Your task to perform on an android device: add a contact Image 0: 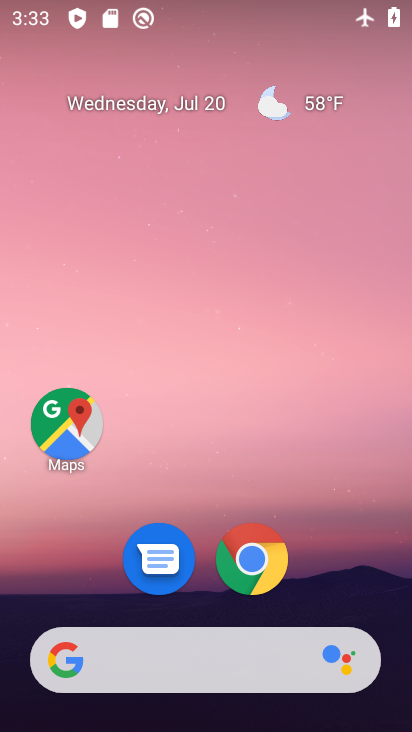
Step 0: drag from (197, 577) to (187, 18)
Your task to perform on an android device: add a contact Image 1: 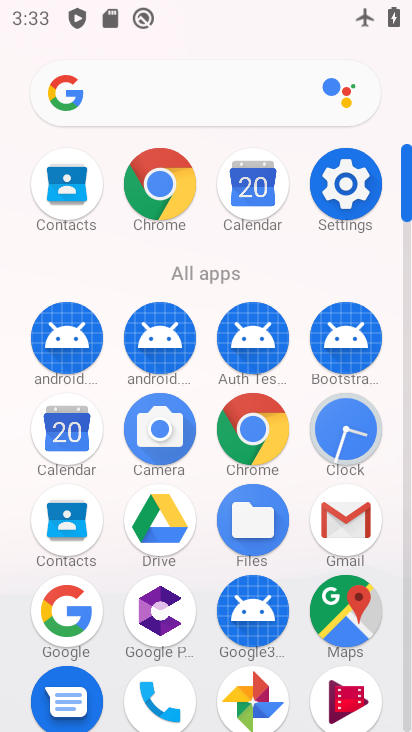
Step 1: click (57, 508)
Your task to perform on an android device: add a contact Image 2: 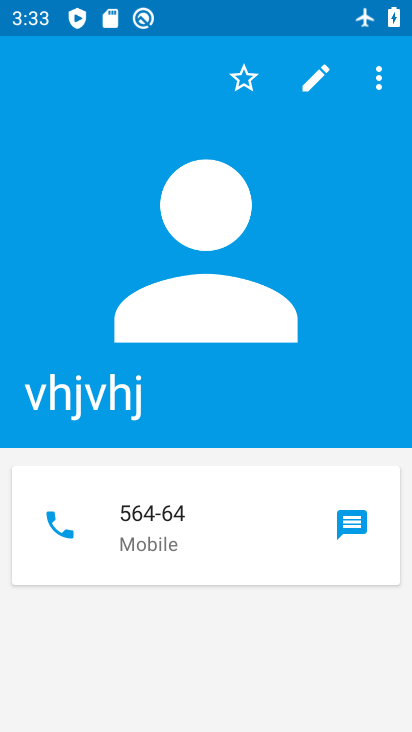
Step 2: press back button
Your task to perform on an android device: add a contact Image 3: 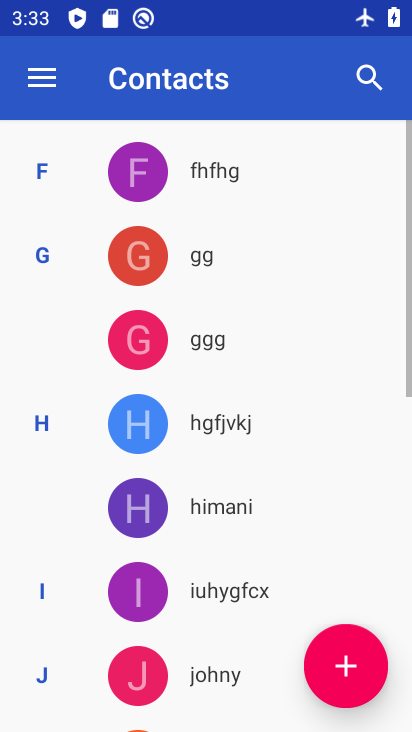
Step 3: click (334, 681)
Your task to perform on an android device: add a contact Image 4: 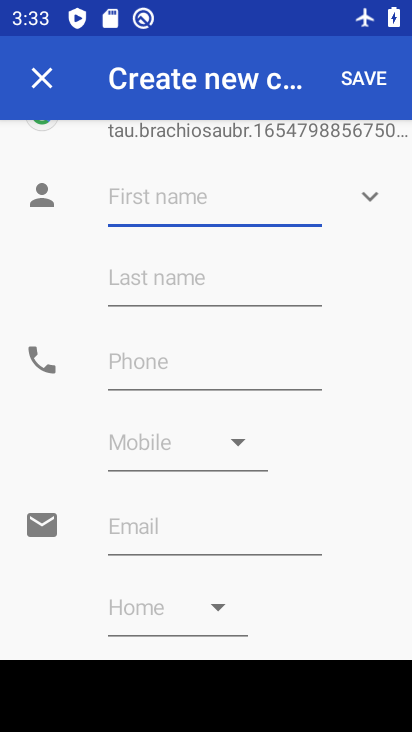
Step 4: click (155, 197)
Your task to perform on an android device: add a contact Image 5: 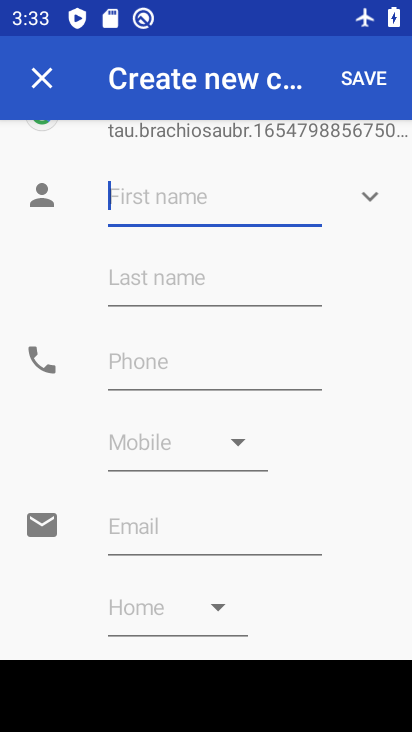
Step 5: type "cvffd"
Your task to perform on an android device: add a contact Image 6: 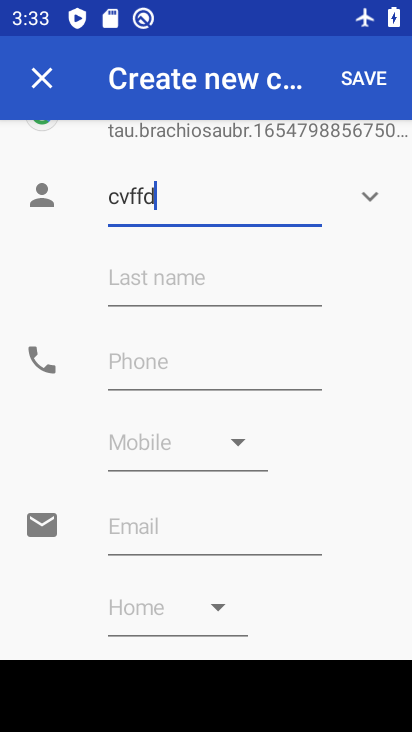
Step 6: click (123, 357)
Your task to perform on an android device: add a contact Image 7: 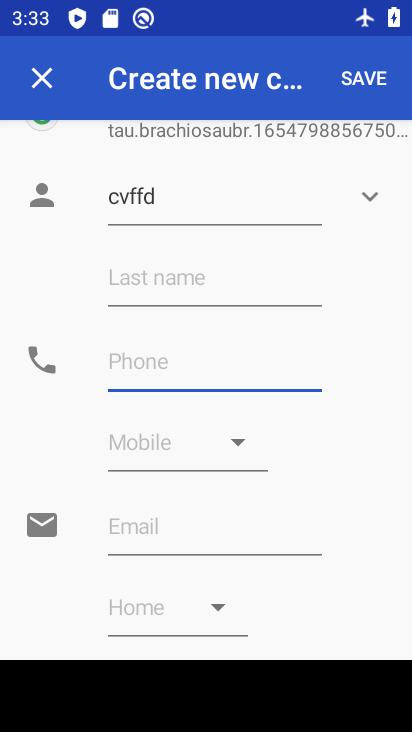
Step 7: type "6767"
Your task to perform on an android device: add a contact Image 8: 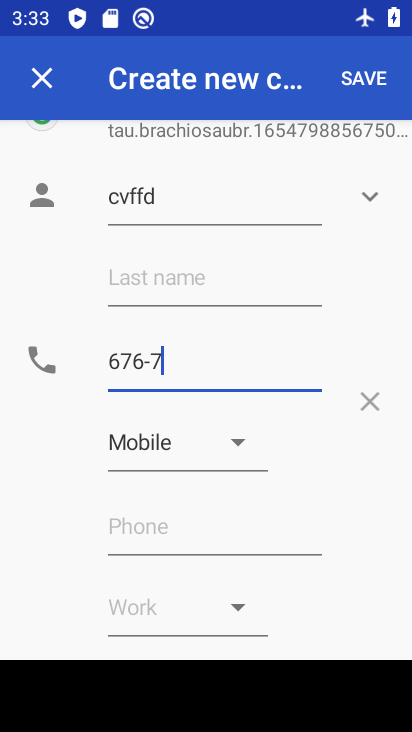
Step 8: click (365, 72)
Your task to perform on an android device: add a contact Image 9: 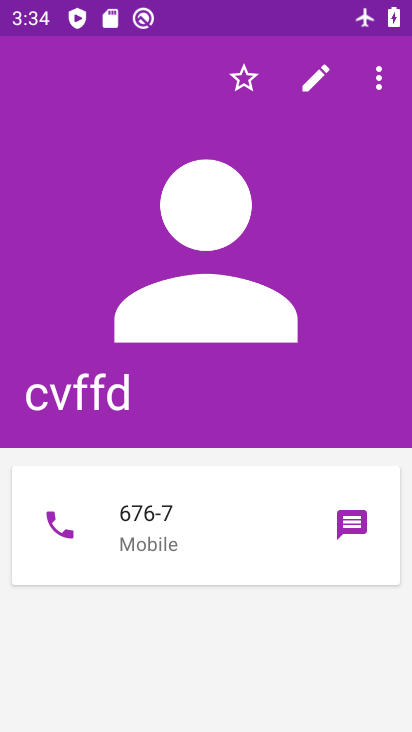
Step 9: task complete